Your task to perform on an android device: Open ESPN.com Image 0: 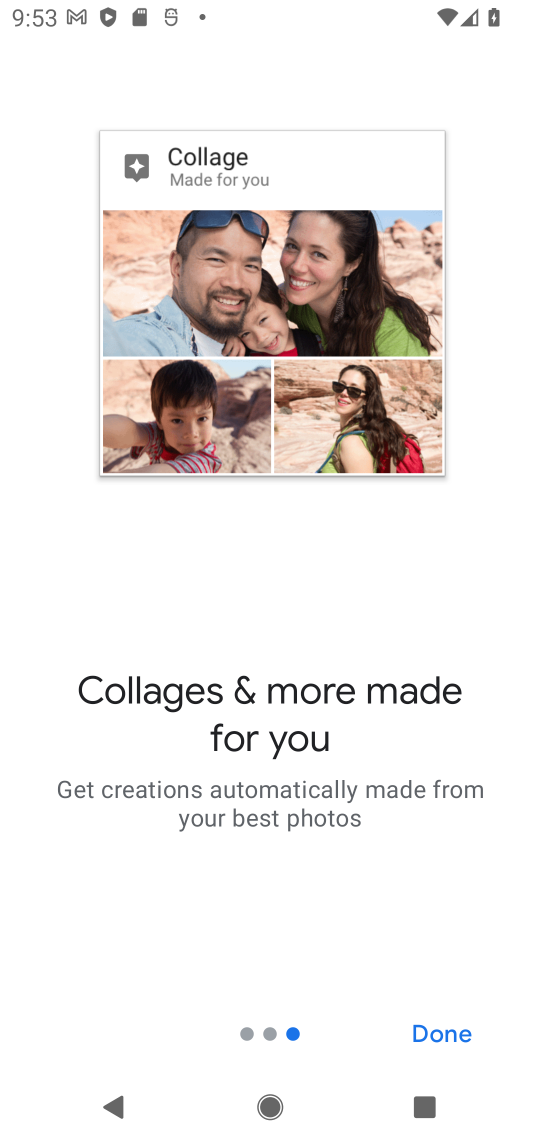
Step 0: press home button
Your task to perform on an android device: Open ESPN.com Image 1: 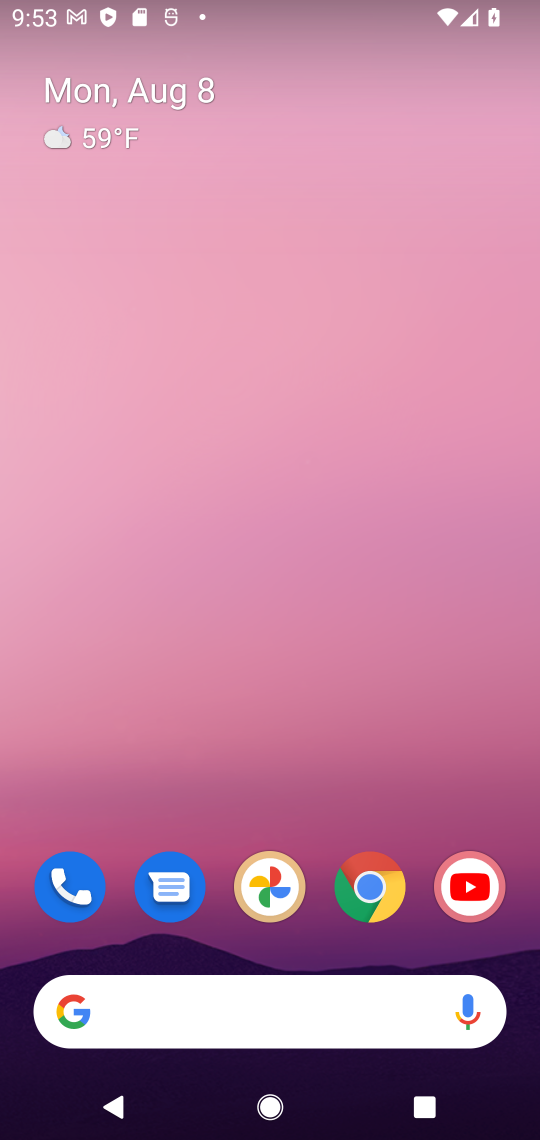
Step 1: click (378, 919)
Your task to perform on an android device: Open ESPN.com Image 2: 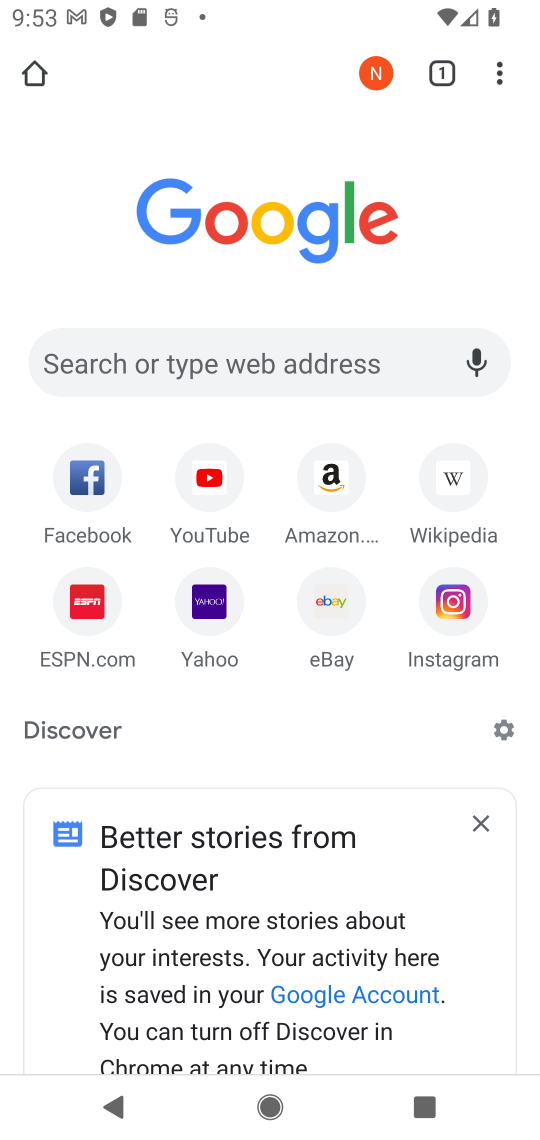
Step 2: click (105, 619)
Your task to perform on an android device: Open ESPN.com Image 3: 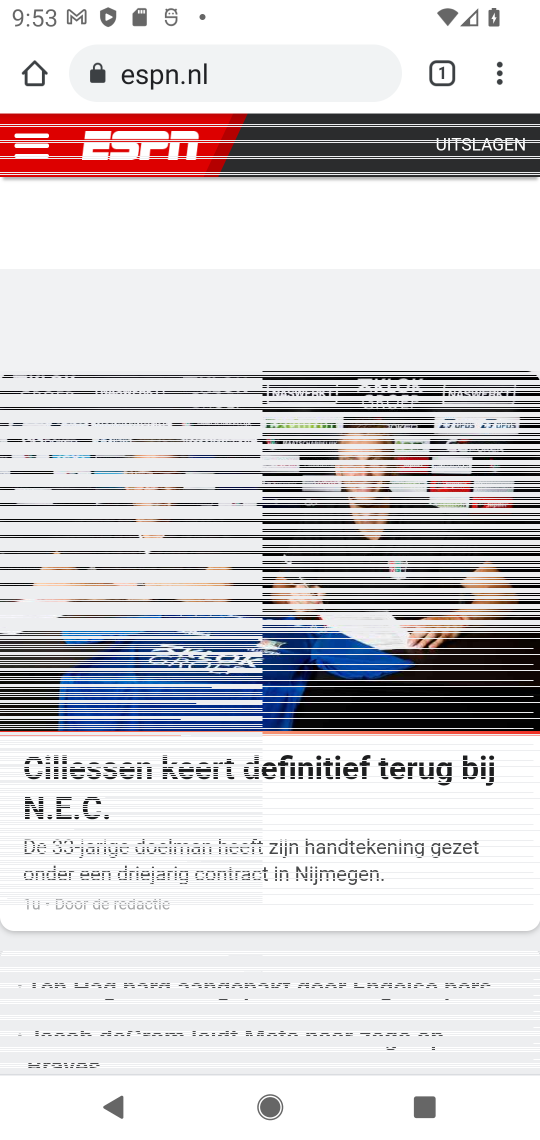
Step 3: task complete